Your task to perform on an android device: toggle airplane mode Image 0: 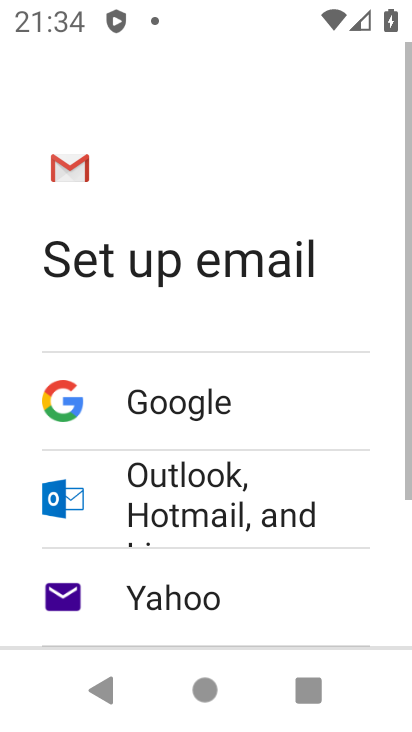
Step 0: press home button
Your task to perform on an android device: toggle airplane mode Image 1: 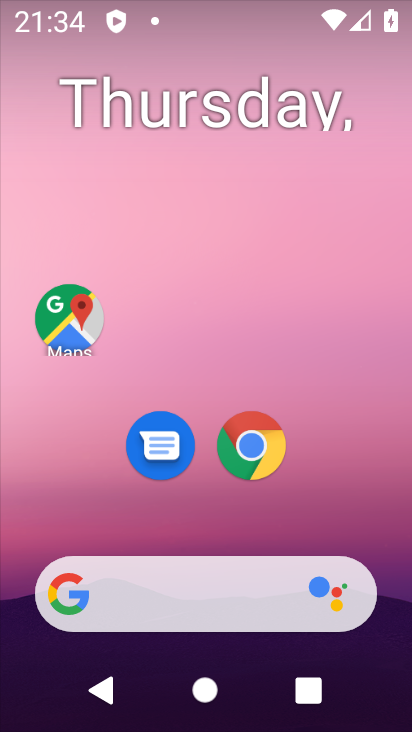
Step 1: drag from (82, 389) to (177, 134)
Your task to perform on an android device: toggle airplane mode Image 2: 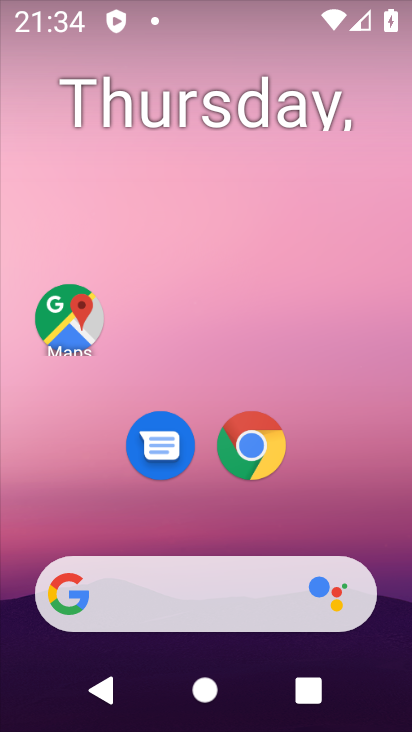
Step 2: drag from (13, 419) to (155, 138)
Your task to perform on an android device: toggle airplane mode Image 3: 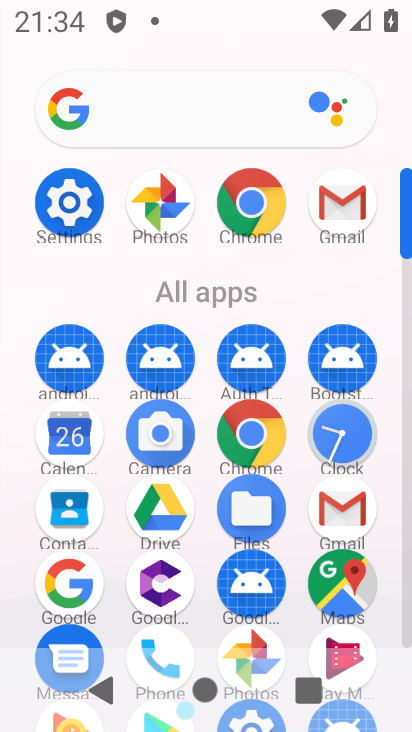
Step 3: click (47, 222)
Your task to perform on an android device: toggle airplane mode Image 4: 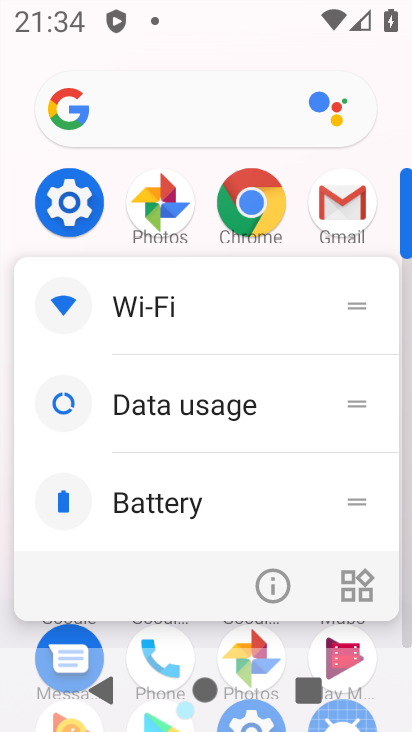
Step 4: click (76, 204)
Your task to perform on an android device: toggle airplane mode Image 5: 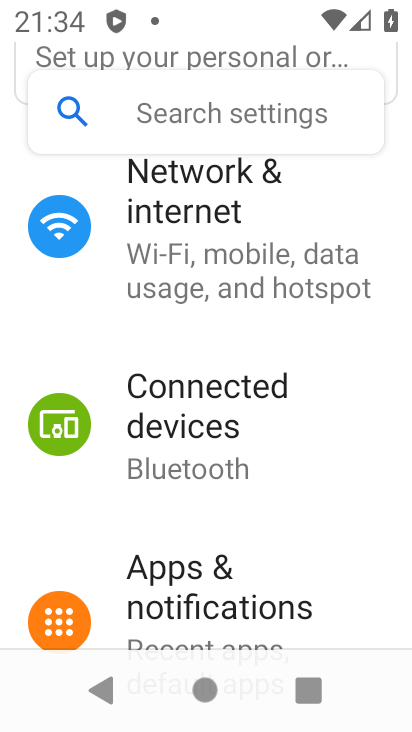
Step 5: drag from (129, 348) to (262, 79)
Your task to perform on an android device: toggle airplane mode Image 6: 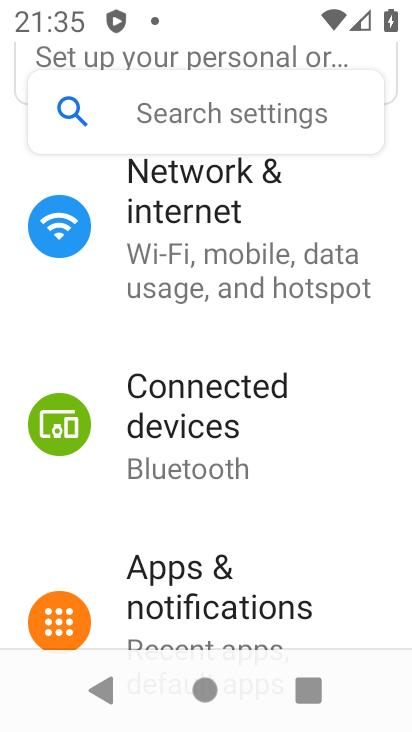
Step 6: drag from (11, 474) to (244, 114)
Your task to perform on an android device: toggle airplane mode Image 7: 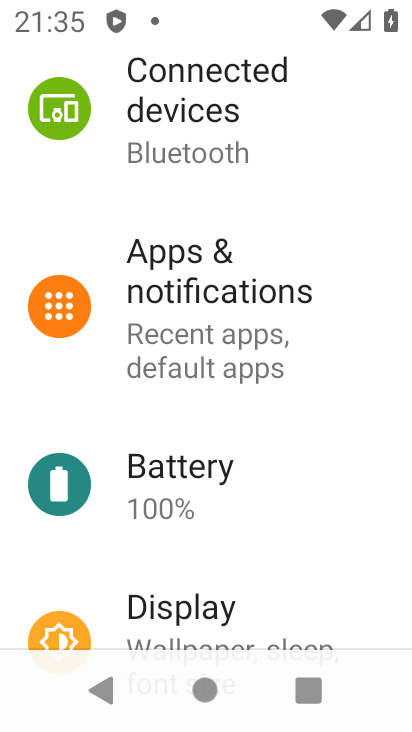
Step 7: drag from (32, 492) to (250, 119)
Your task to perform on an android device: toggle airplane mode Image 8: 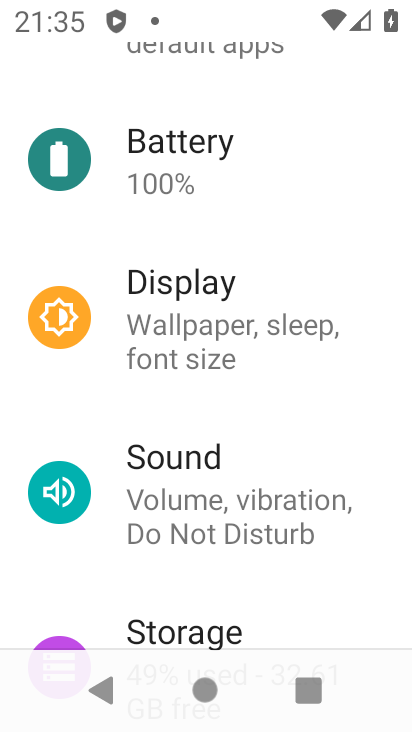
Step 8: drag from (151, 180) to (152, 626)
Your task to perform on an android device: toggle airplane mode Image 9: 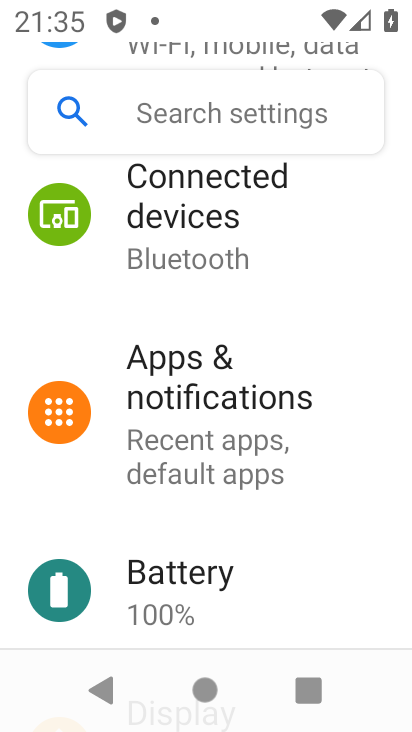
Step 9: drag from (165, 382) to (111, 724)
Your task to perform on an android device: toggle airplane mode Image 10: 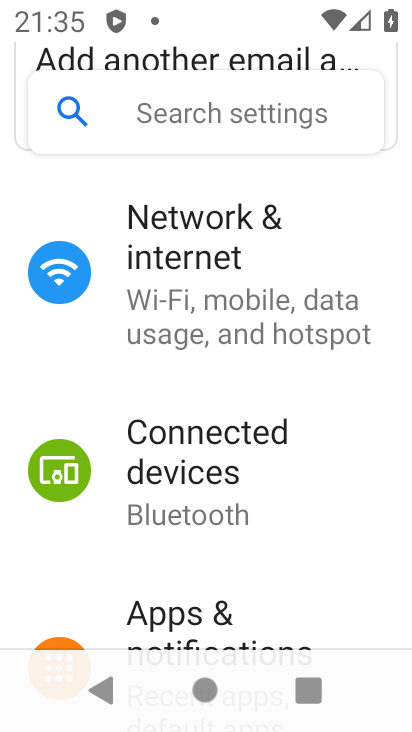
Step 10: drag from (307, 199) to (267, 568)
Your task to perform on an android device: toggle airplane mode Image 11: 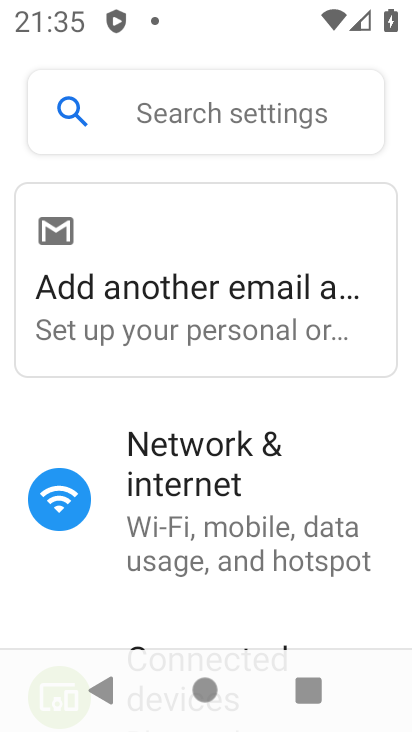
Step 11: click (255, 487)
Your task to perform on an android device: toggle airplane mode Image 12: 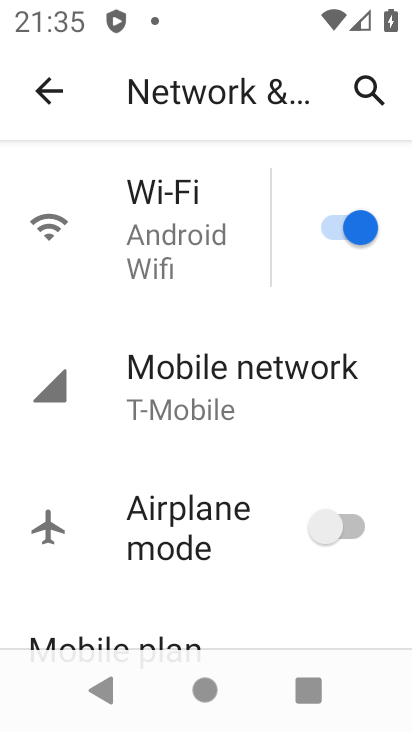
Step 12: click (317, 531)
Your task to perform on an android device: toggle airplane mode Image 13: 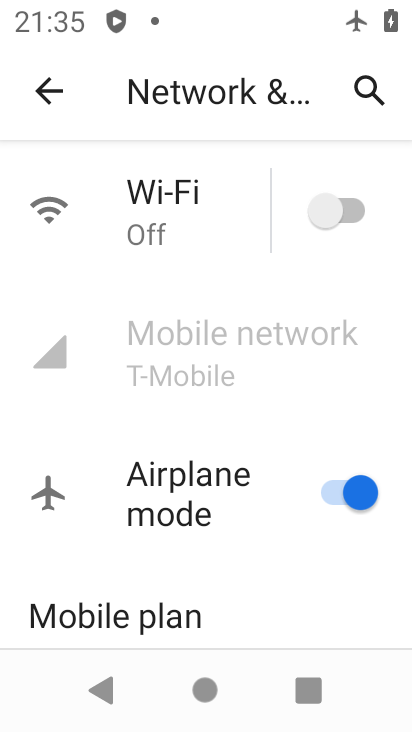
Step 13: task complete